Your task to perform on an android device: change the upload size in google photos Image 0: 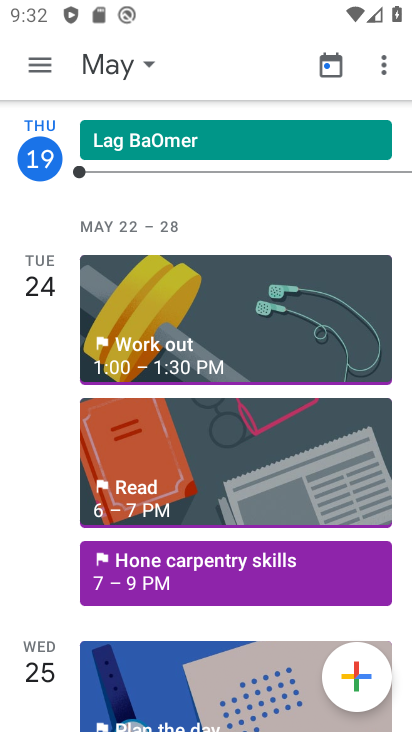
Step 0: press home button
Your task to perform on an android device: change the upload size in google photos Image 1: 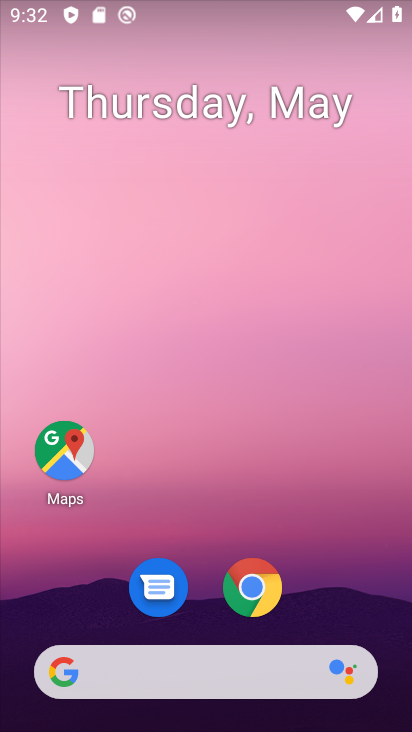
Step 1: drag from (161, 629) to (225, 13)
Your task to perform on an android device: change the upload size in google photos Image 2: 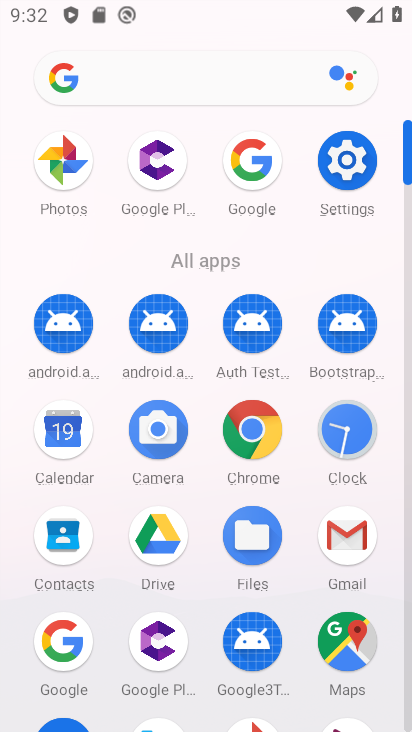
Step 2: click (43, 179)
Your task to perform on an android device: change the upload size in google photos Image 3: 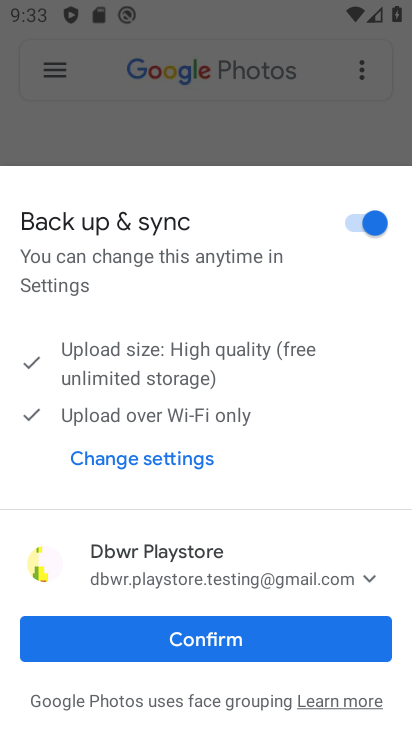
Step 3: click (48, 68)
Your task to perform on an android device: change the upload size in google photos Image 4: 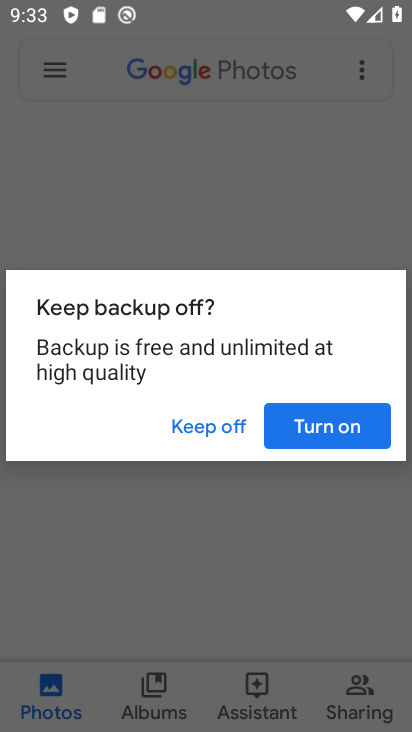
Step 4: click (228, 419)
Your task to perform on an android device: change the upload size in google photos Image 5: 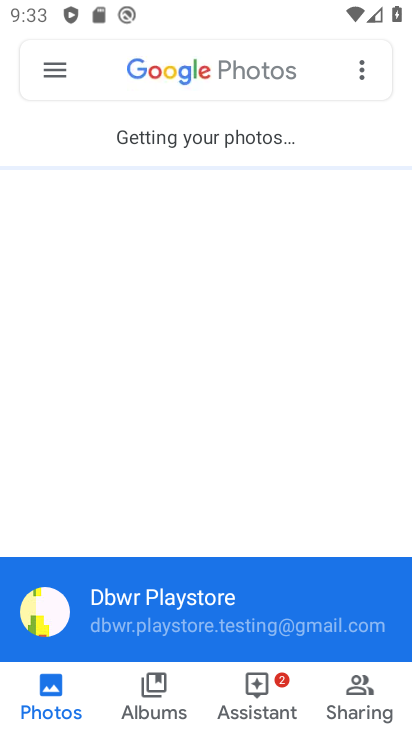
Step 5: click (40, 74)
Your task to perform on an android device: change the upload size in google photos Image 6: 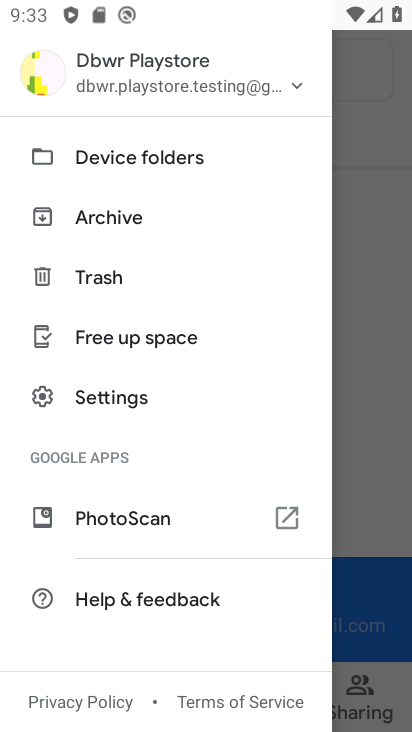
Step 6: click (151, 79)
Your task to perform on an android device: change the upload size in google photos Image 7: 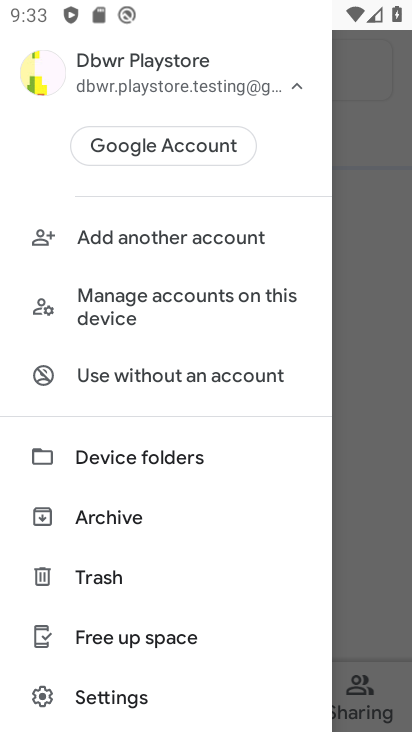
Step 7: click (80, 695)
Your task to perform on an android device: change the upload size in google photos Image 8: 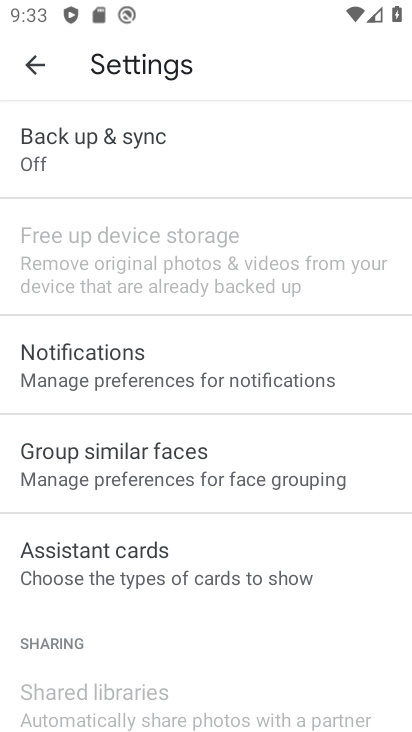
Step 8: click (100, 157)
Your task to perform on an android device: change the upload size in google photos Image 9: 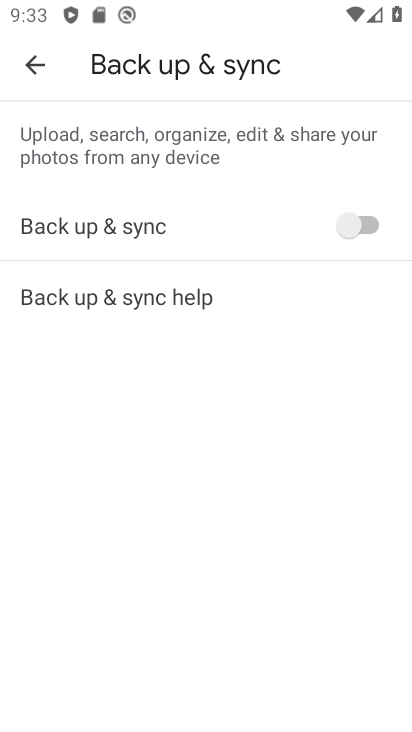
Step 9: click (152, 227)
Your task to perform on an android device: change the upload size in google photos Image 10: 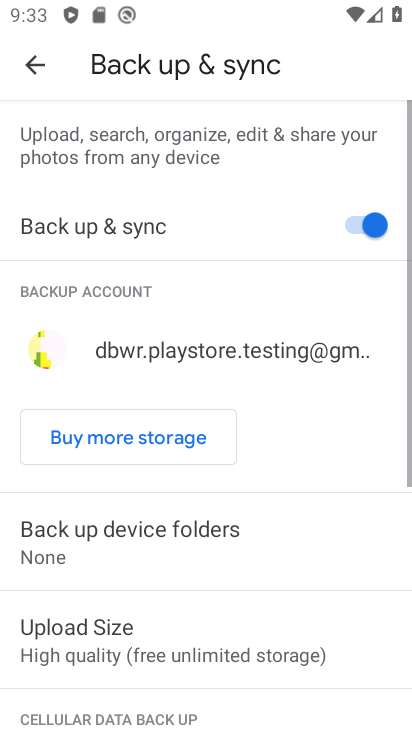
Step 10: click (211, 636)
Your task to perform on an android device: change the upload size in google photos Image 11: 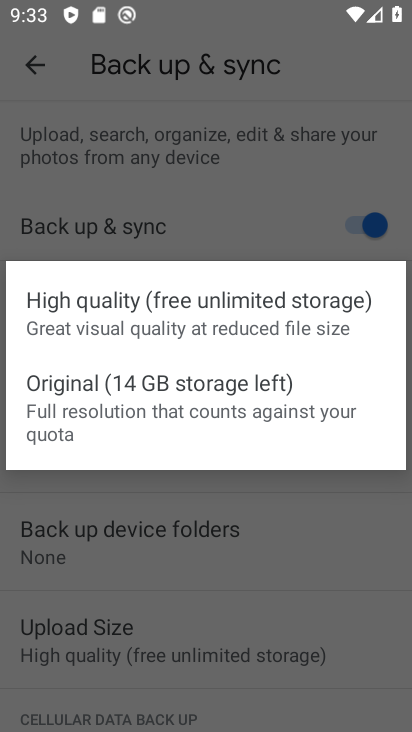
Step 11: click (134, 420)
Your task to perform on an android device: change the upload size in google photos Image 12: 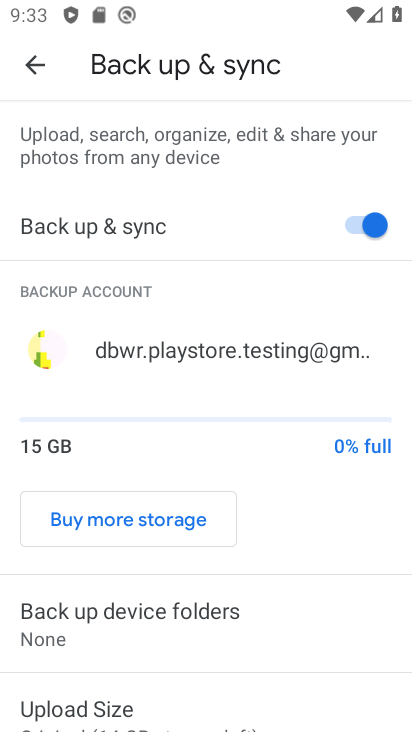
Step 12: task complete